Your task to perform on an android device: open a bookmark in the chrome app Image 0: 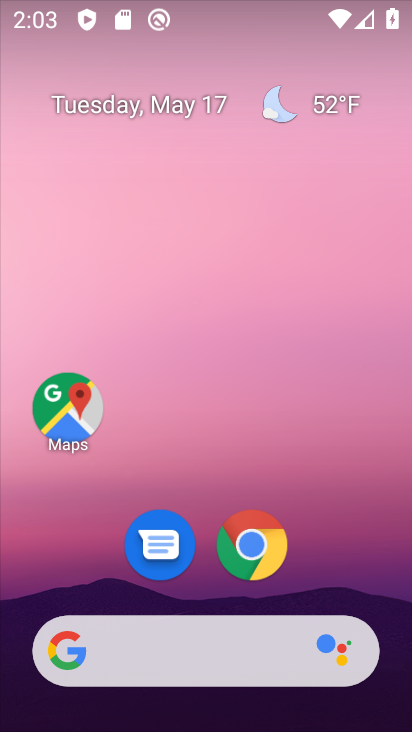
Step 0: drag from (362, 569) to (377, 225)
Your task to perform on an android device: open a bookmark in the chrome app Image 1: 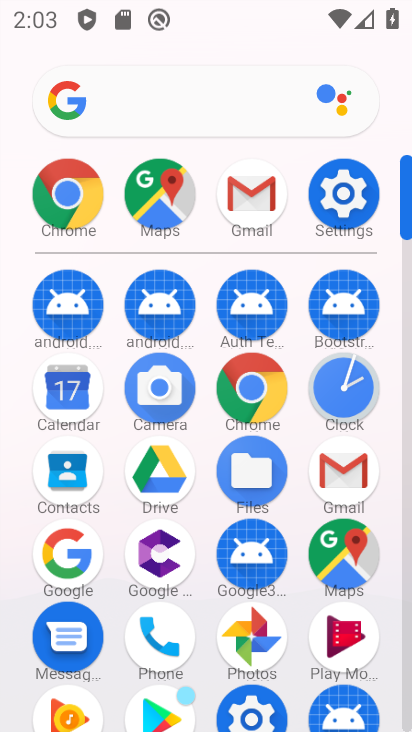
Step 1: click (255, 388)
Your task to perform on an android device: open a bookmark in the chrome app Image 2: 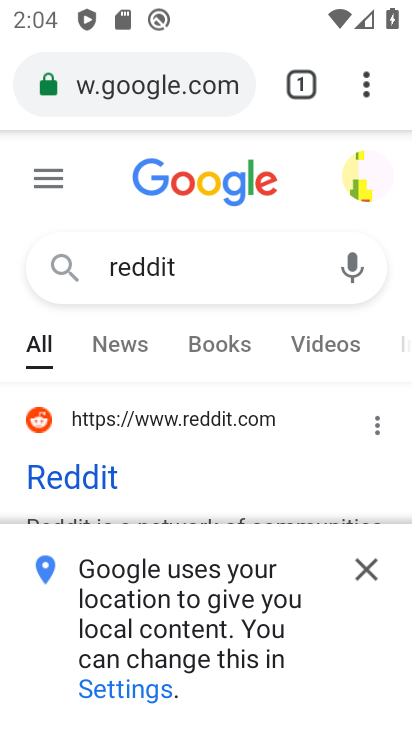
Step 2: click (366, 97)
Your task to perform on an android device: open a bookmark in the chrome app Image 3: 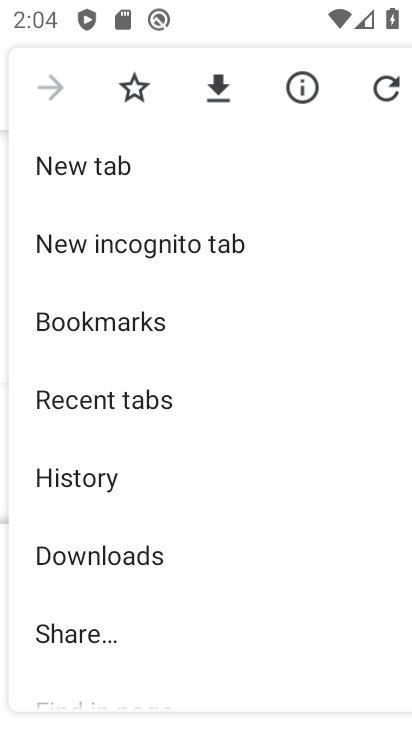
Step 3: drag from (294, 606) to (313, 422)
Your task to perform on an android device: open a bookmark in the chrome app Image 4: 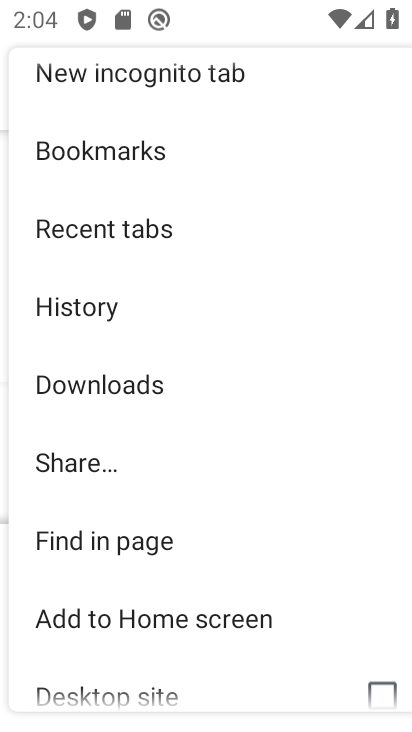
Step 4: drag from (304, 622) to (305, 470)
Your task to perform on an android device: open a bookmark in the chrome app Image 5: 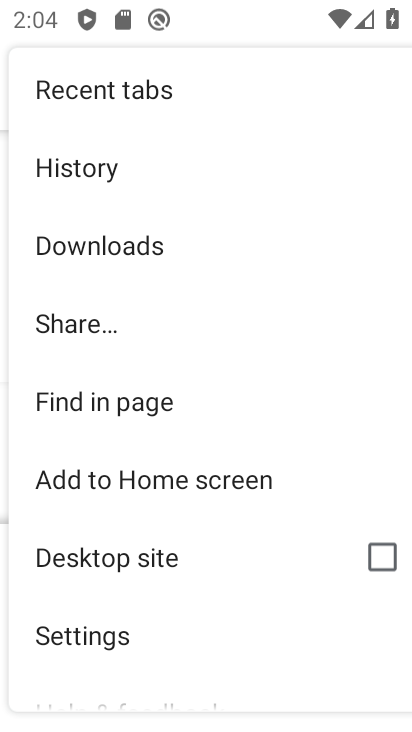
Step 5: drag from (272, 621) to (311, 482)
Your task to perform on an android device: open a bookmark in the chrome app Image 6: 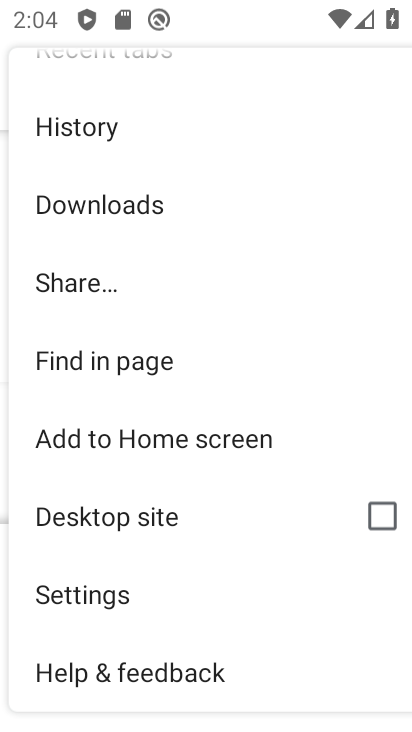
Step 6: drag from (274, 604) to (290, 539)
Your task to perform on an android device: open a bookmark in the chrome app Image 7: 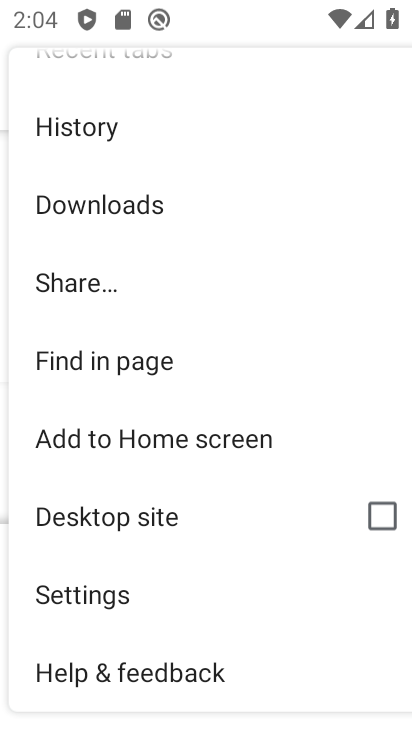
Step 7: drag from (296, 334) to (272, 492)
Your task to perform on an android device: open a bookmark in the chrome app Image 8: 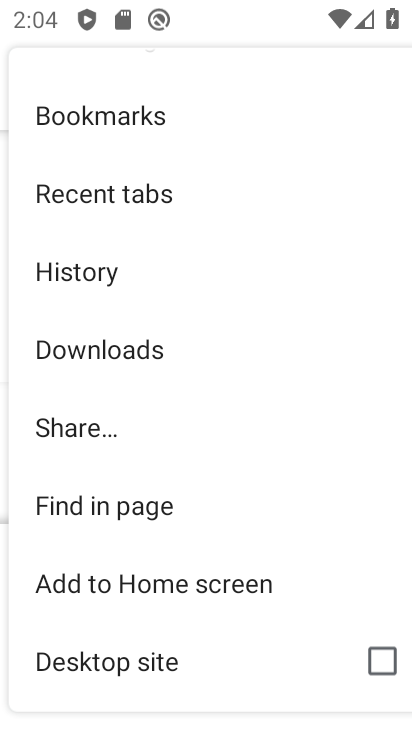
Step 8: drag from (304, 240) to (291, 401)
Your task to perform on an android device: open a bookmark in the chrome app Image 9: 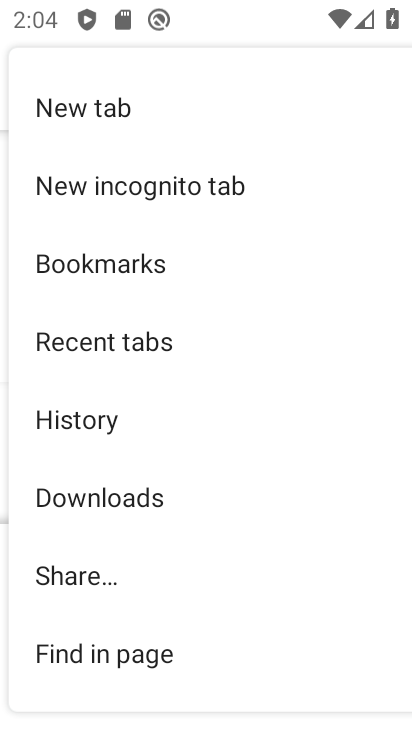
Step 9: click (137, 264)
Your task to perform on an android device: open a bookmark in the chrome app Image 10: 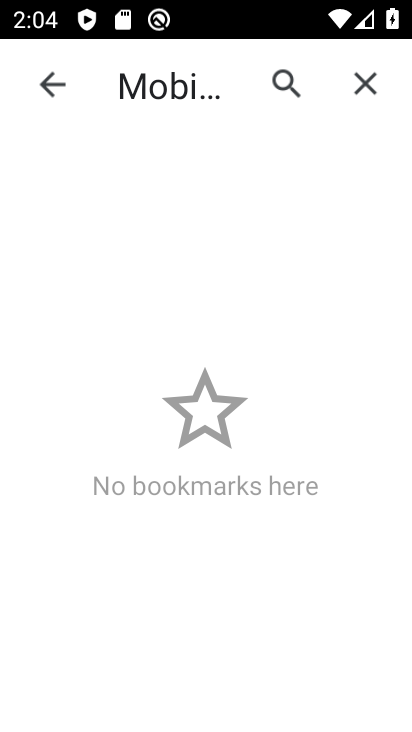
Step 10: task complete